Your task to perform on an android device: toggle show notifications on the lock screen Image 0: 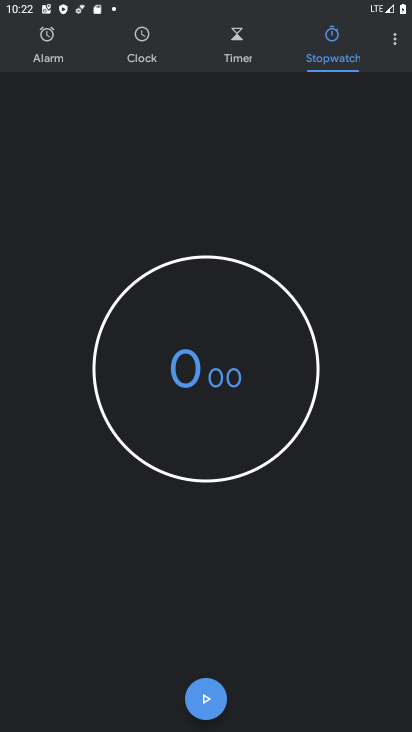
Step 0: press home button
Your task to perform on an android device: toggle show notifications on the lock screen Image 1: 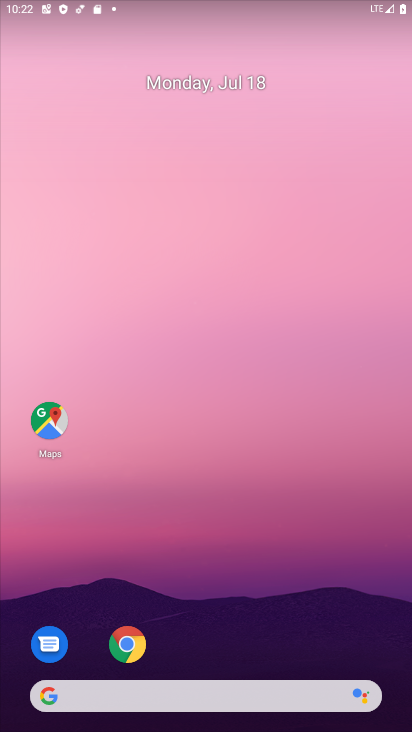
Step 1: drag from (307, 634) to (334, 201)
Your task to perform on an android device: toggle show notifications on the lock screen Image 2: 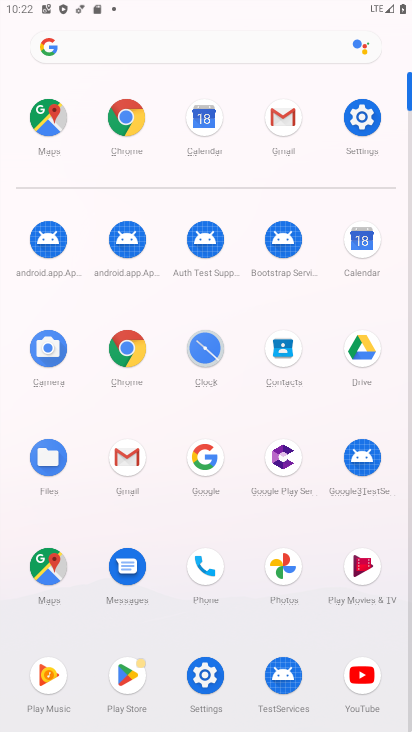
Step 2: click (354, 124)
Your task to perform on an android device: toggle show notifications on the lock screen Image 3: 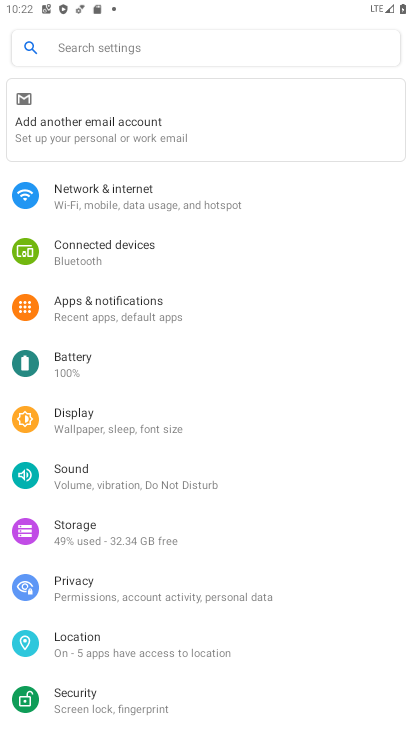
Step 3: drag from (360, 581) to (335, 448)
Your task to perform on an android device: toggle show notifications on the lock screen Image 4: 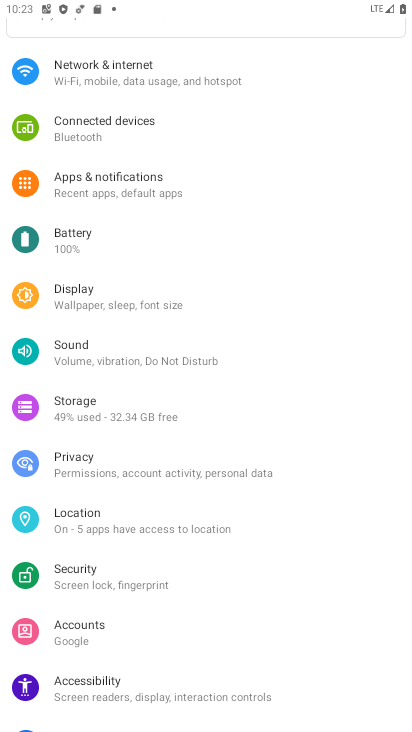
Step 4: drag from (327, 533) to (332, 433)
Your task to perform on an android device: toggle show notifications on the lock screen Image 5: 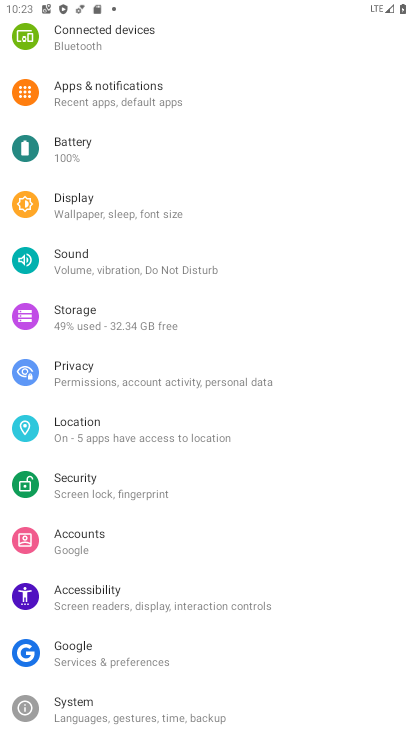
Step 5: drag from (339, 527) to (346, 426)
Your task to perform on an android device: toggle show notifications on the lock screen Image 6: 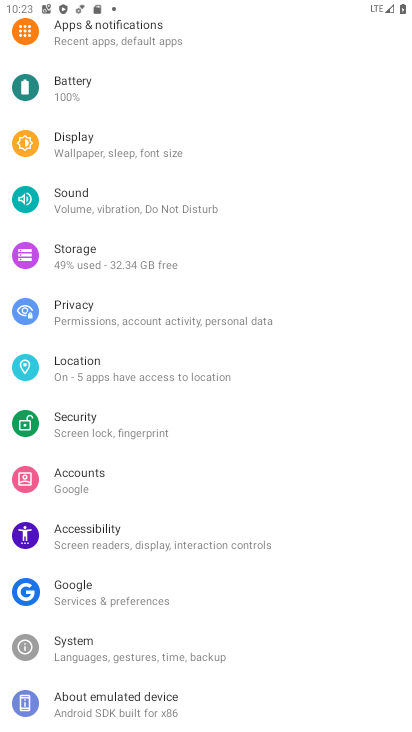
Step 6: drag from (335, 560) to (348, 389)
Your task to perform on an android device: toggle show notifications on the lock screen Image 7: 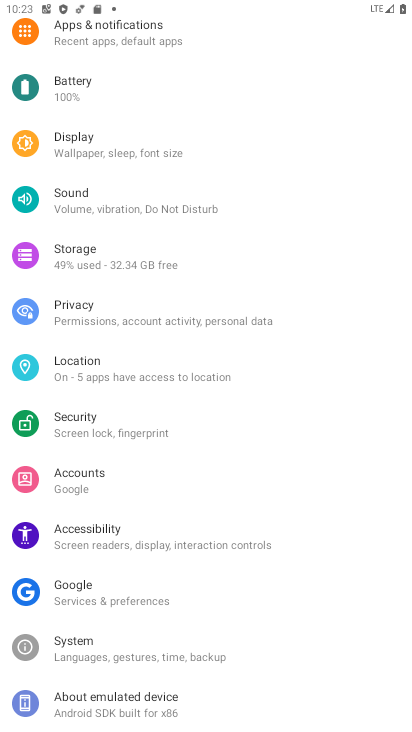
Step 7: drag from (353, 240) to (350, 327)
Your task to perform on an android device: toggle show notifications on the lock screen Image 8: 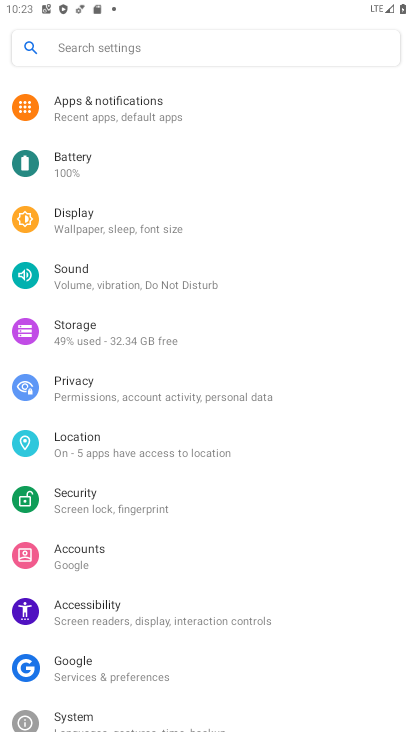
Step 8: drag from (352, 304) to (354, 370)
Your task to perform on an android device: toggle show notifications on the lock screen Image 9: 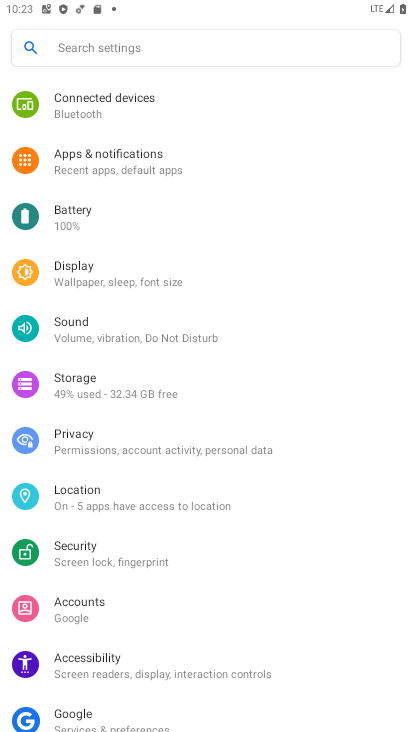
Step 9: drag from (343, 280) to (342, 364)
Your task to perform on an android device: toggle show notifications on the lock screen Image 10: 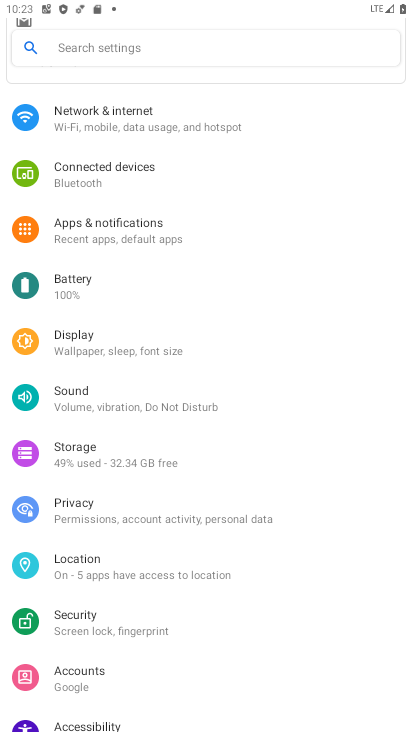
Step 10: click (149, 241)
Your task to perform on an android device: toggle show notifications on the lock screen Image 11: 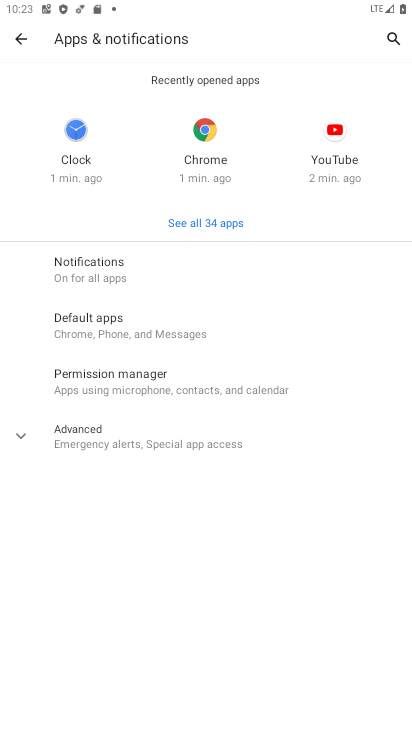
Step 11: click (165, 269)
Your task to perform on an android device: toggle show notifications on the lock screen Image 12: 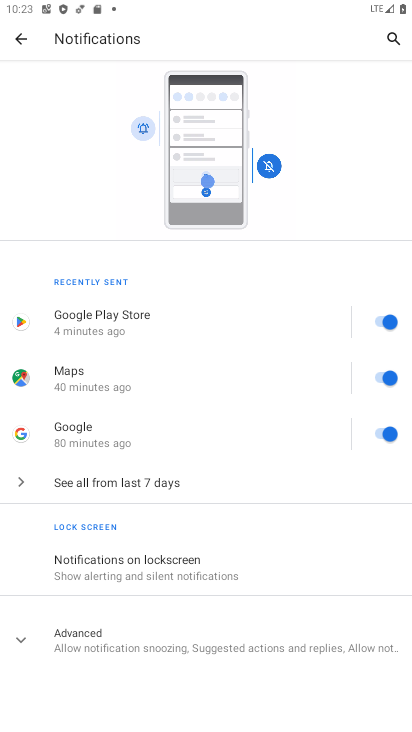
Step 12: click (193, 571)
Your task to perform on an android device: toggle show notifications on the lock screen Image 13: 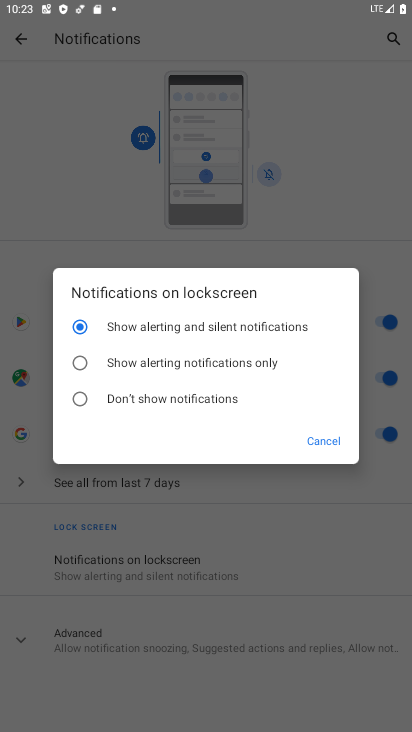
Step 13: click (116, 353)
Your task to perform on an android device: toggle show notifications on the lock screen Image 14: 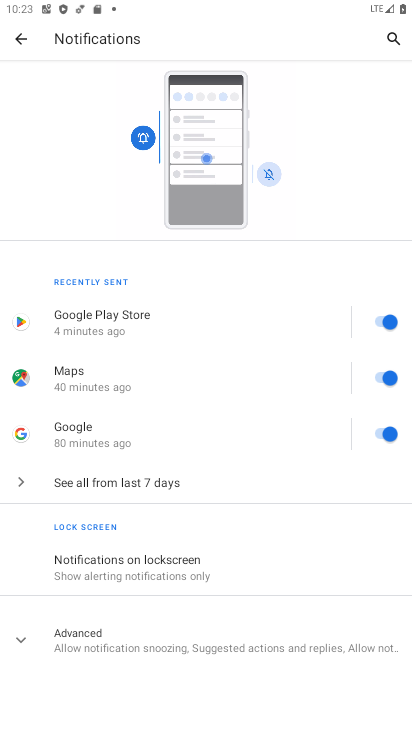
Step 14: task complete